Your task to perform on an android device: turn on airplane mode Image 0: 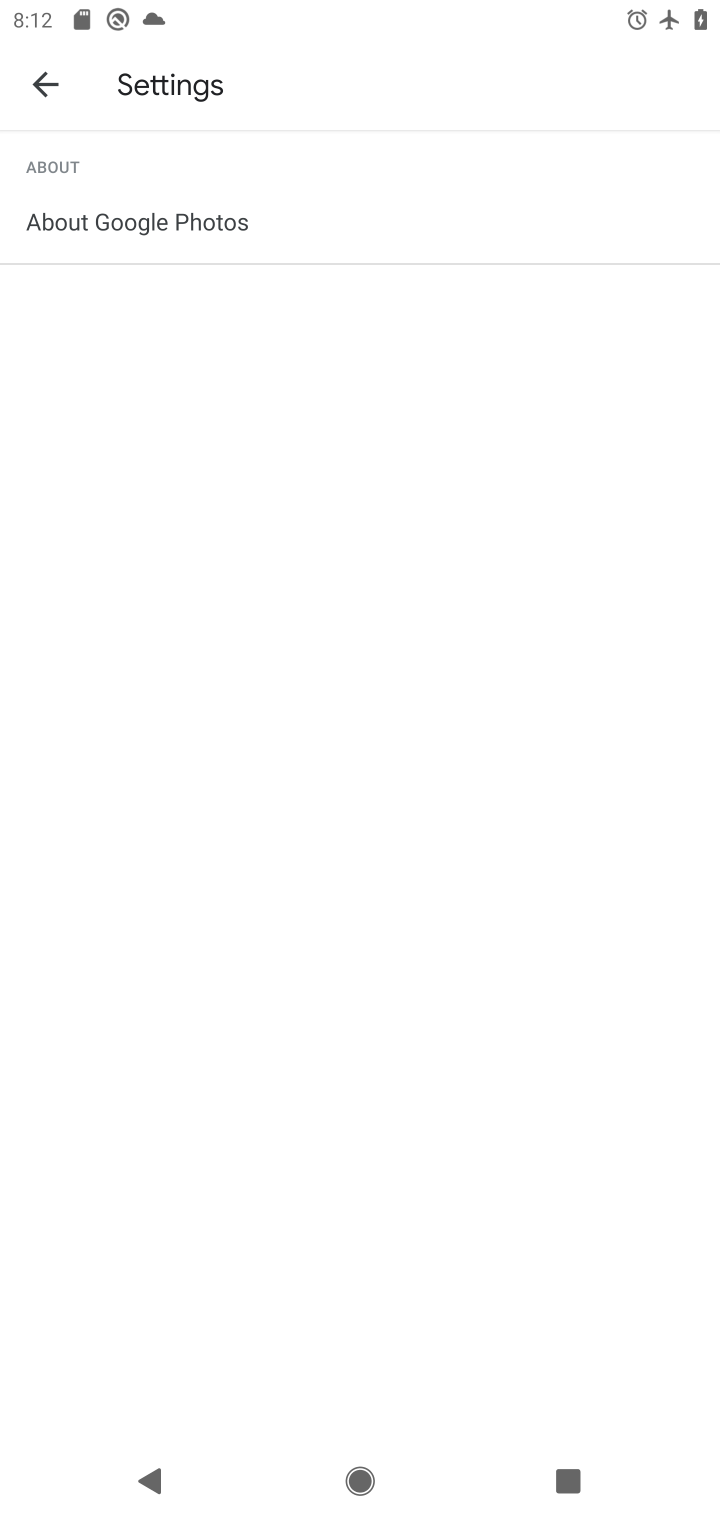
Step 0: press home button
Your task to perform on an android device: turn on airplane mode Image 1: 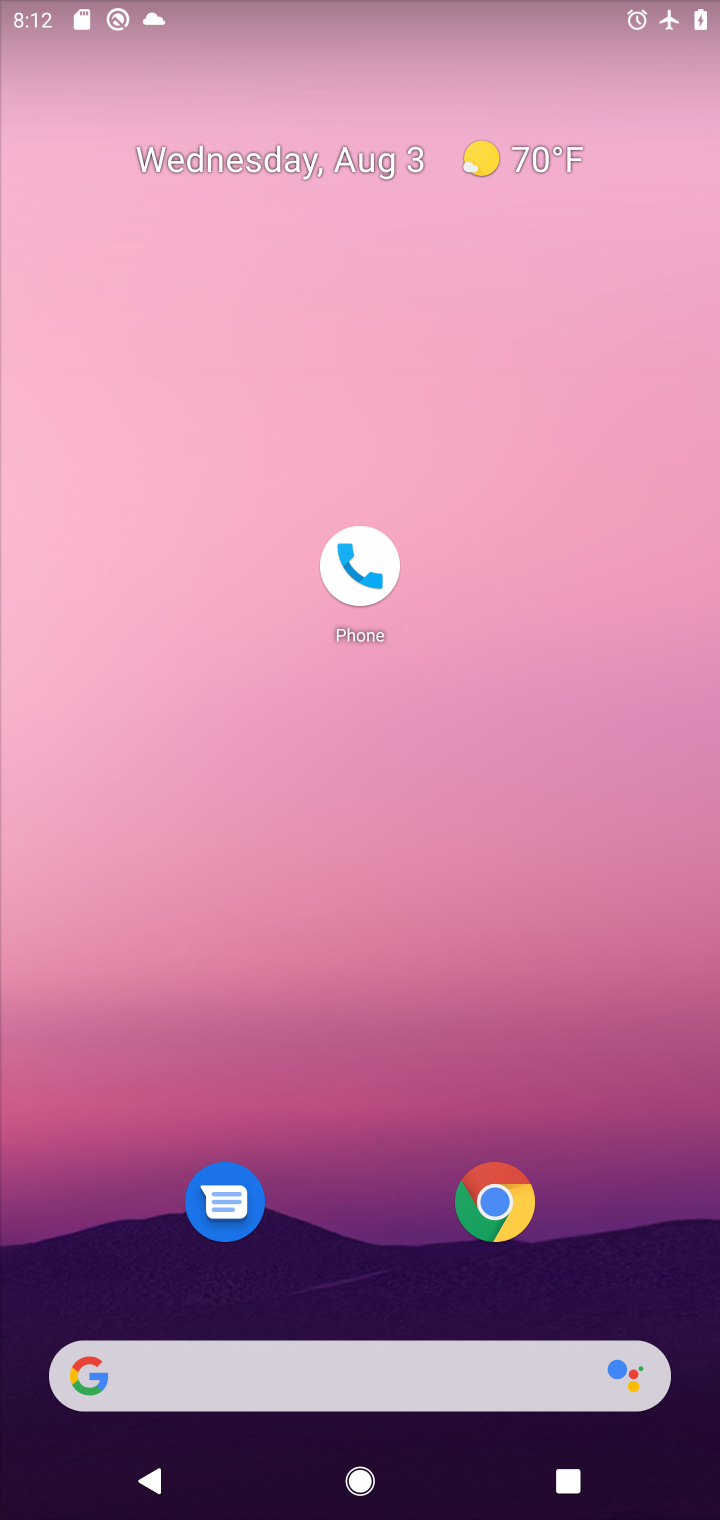
Step 1: drag from (311, 1383) to (624, 234)
Your task to perform on an android device: turn on airplane mode Image 2: 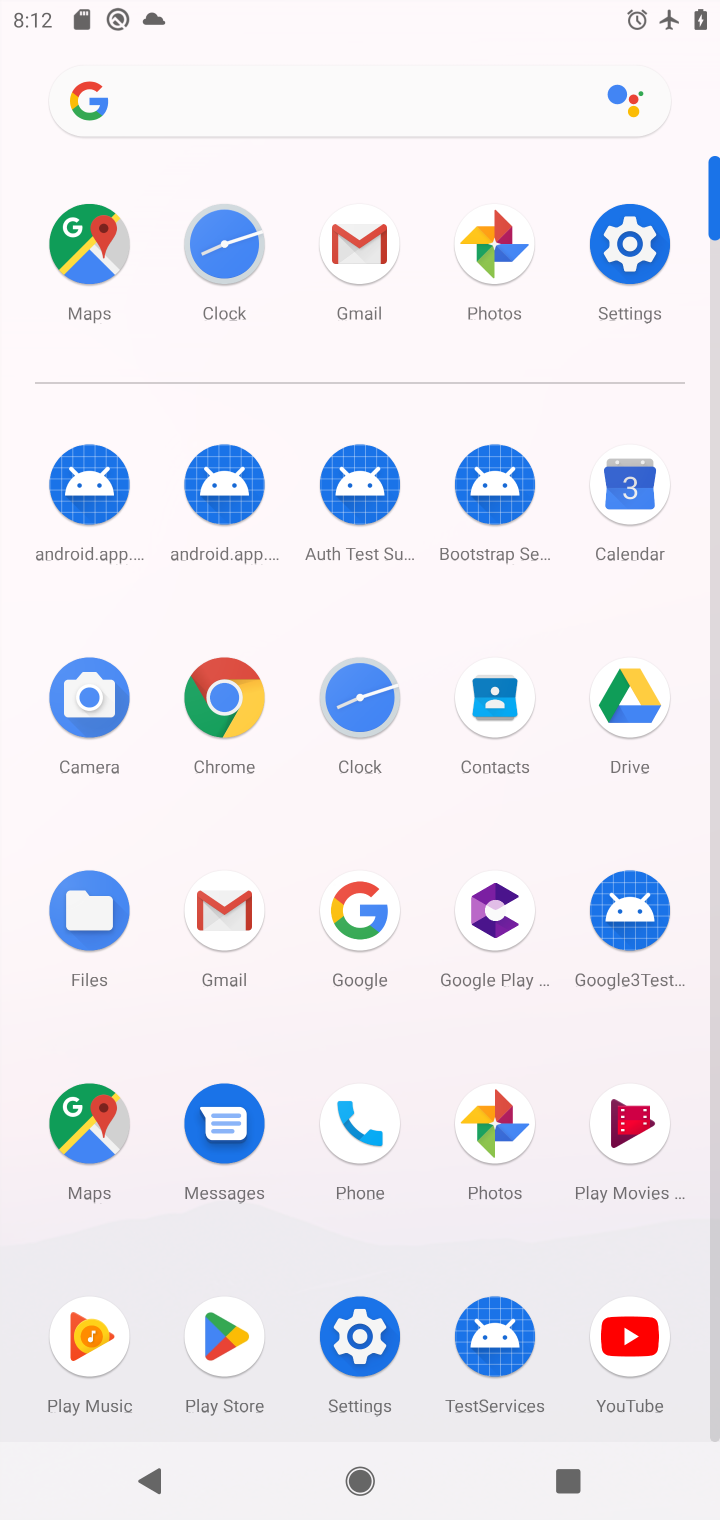
Step 2: click (629, 242)
Your task to perform on an android device: turn on airplane mode Image 3: 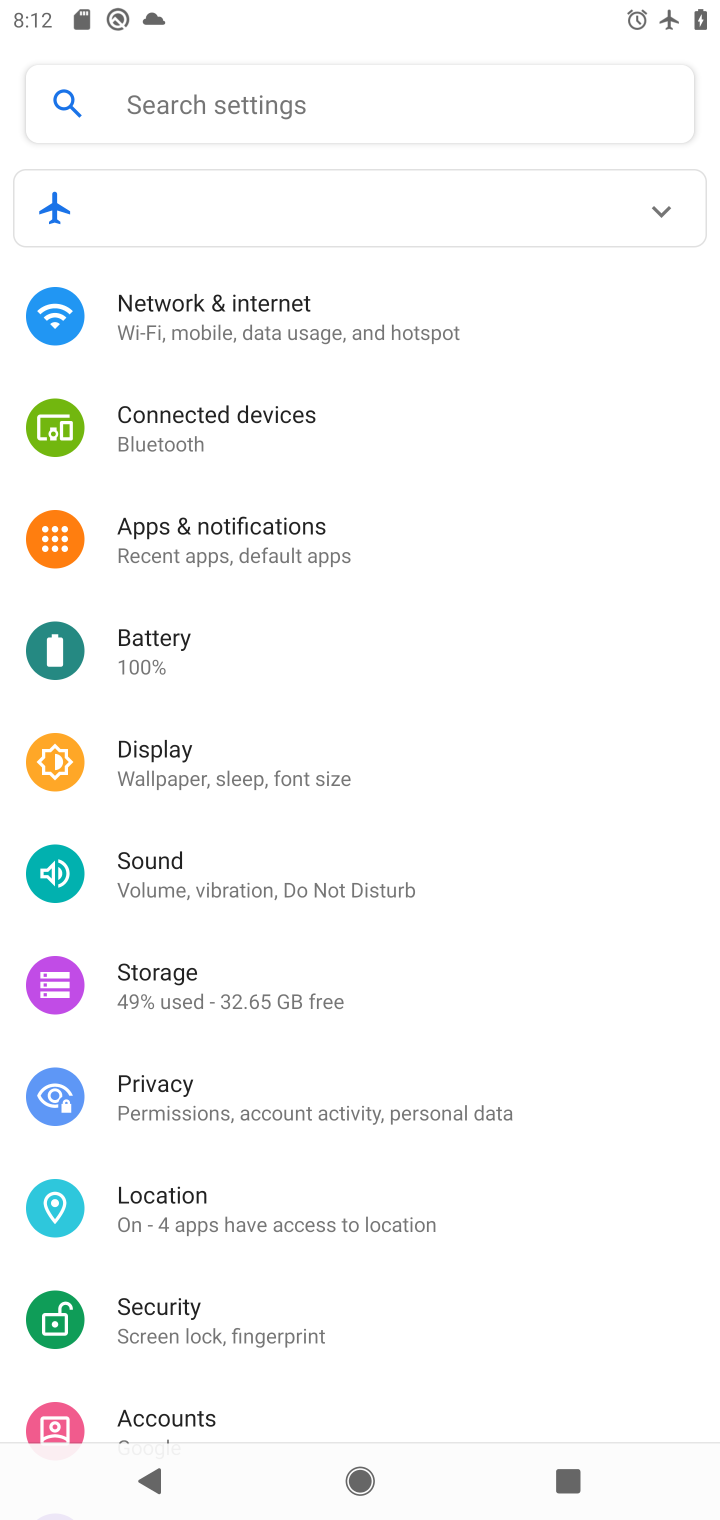
Step 3: click (300, 326)
Your task to perform on an android device: turn on airplane mode Image 4: 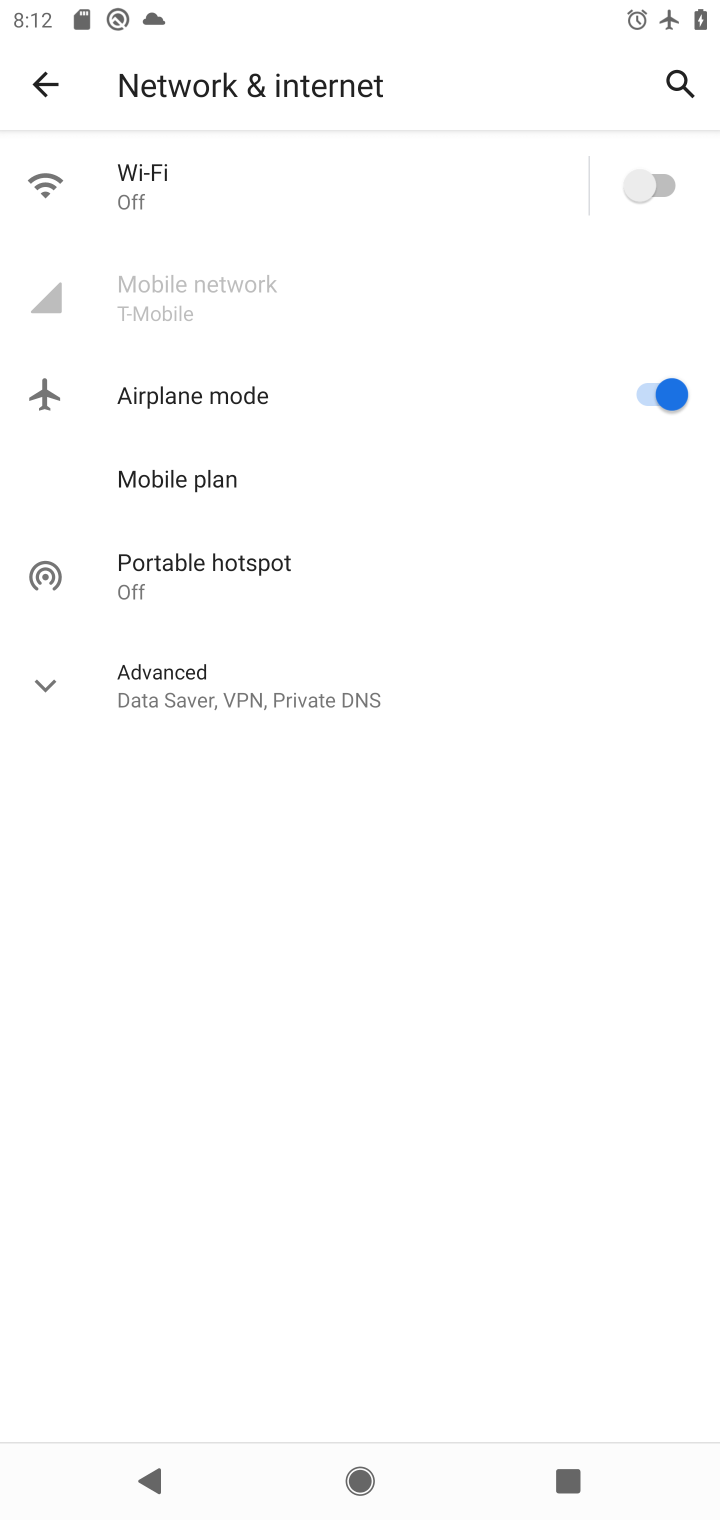
Step 4: task complete